Your task to perform on an android device: Go to ESPN.com Image 0: 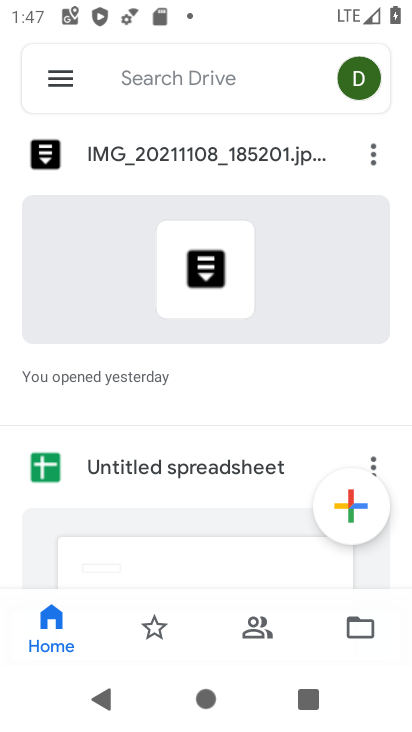
Step 0: press home button
Your task to perform on an android device: Go to ESPN.com Image 1: 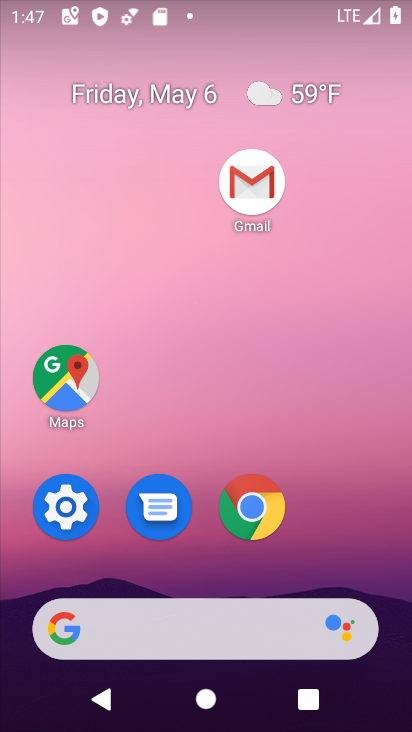
Step 1: click (258, 504)
Your task to perform on an android device: Go to ESPN.com Image 2: 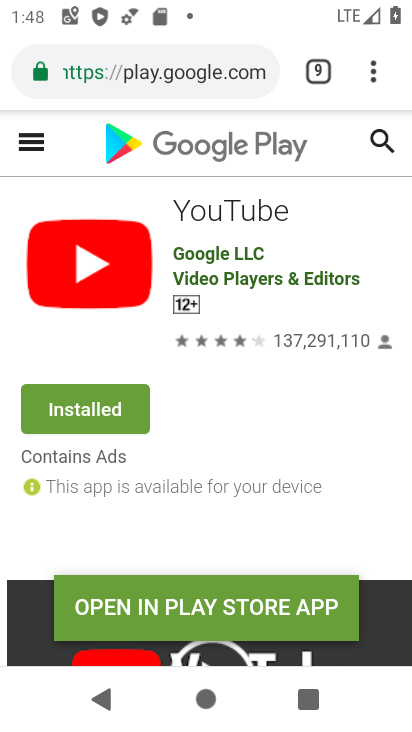
Step 2: click (374, 72)
Your task to perform on an android device: Go to ESPN.com Image 3: 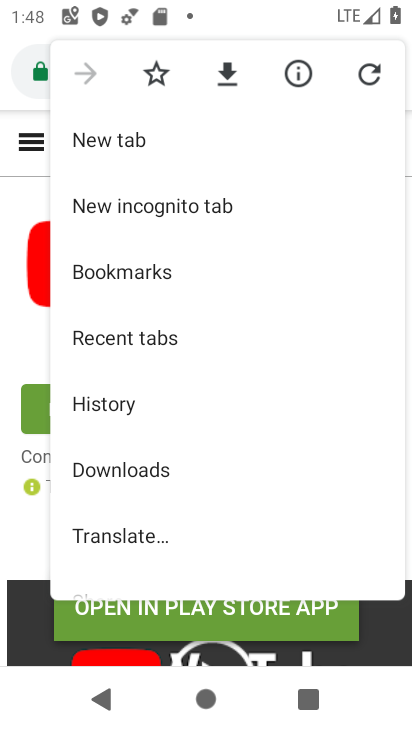
Step 3: click (131, 145)
Your task to perform on an android device: Go to ESPN.com Image 4: 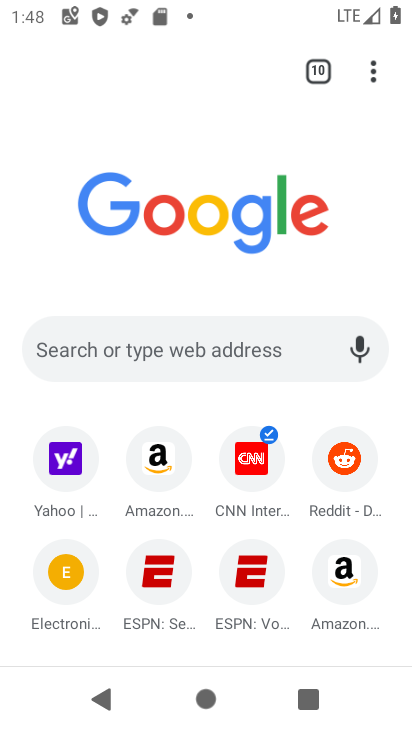
Step 4: click (142, 335)
Your task to perform on an android device: Go to ESPN.com Image 5: 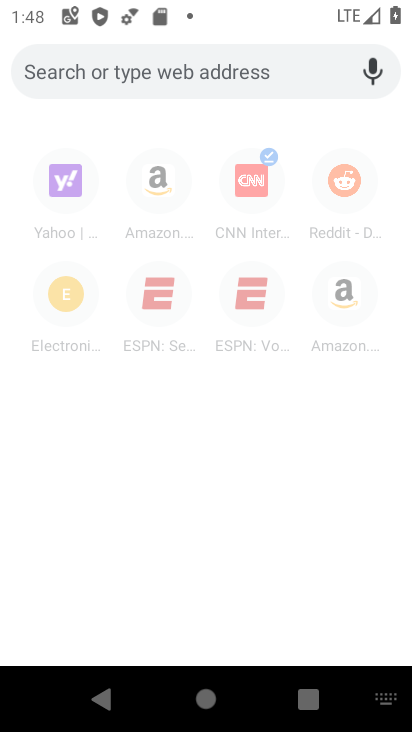
Step 5: type "espn.com"
Your task to perform on an android device: Go to ESPN.com Image 6: 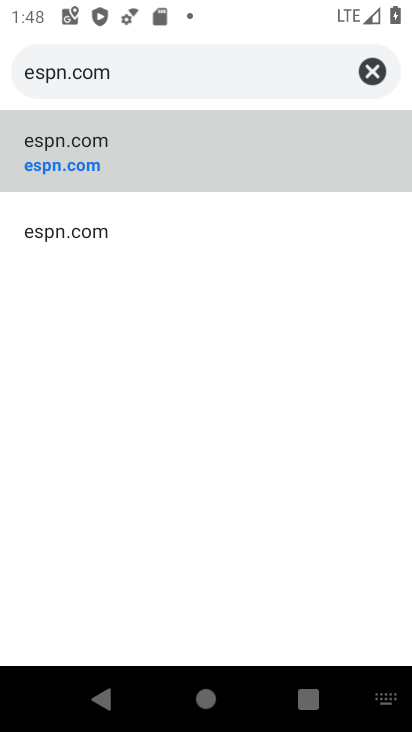
Step 6: click (116, 128)
Your task to perform on an android device: Go to ESPN.com Image 7: 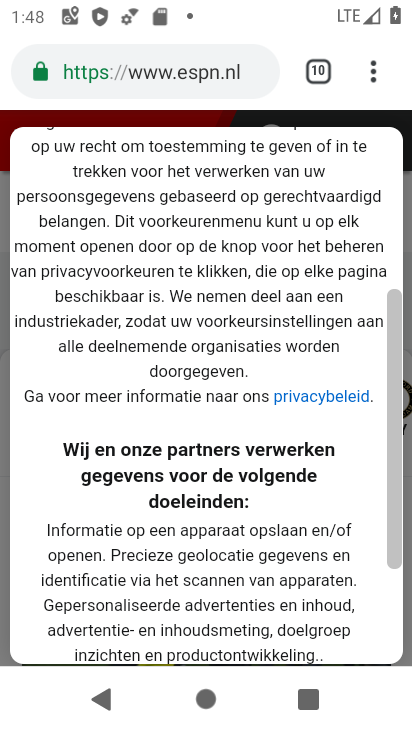
Step 7: task complete